Your task to perform on an android device: find which apps use the phone's location Image 0: 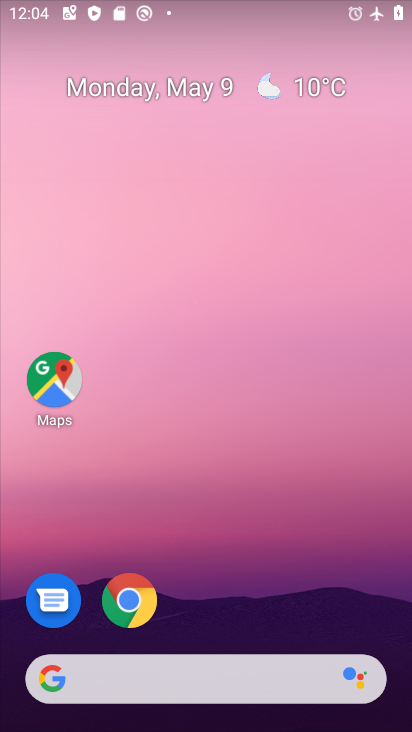
Step 0: click (56, 389)
Your task to perform on an android device: find which apps use the phone's location Image 1: 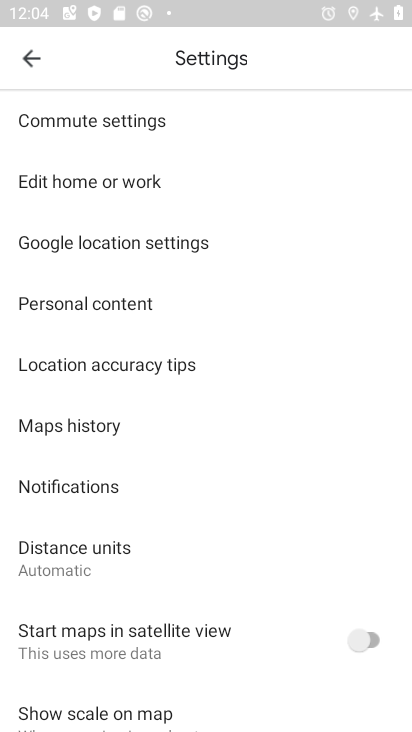
Step 1: task complete